Your task to perform on an android device: Go to notification settings Image 0: 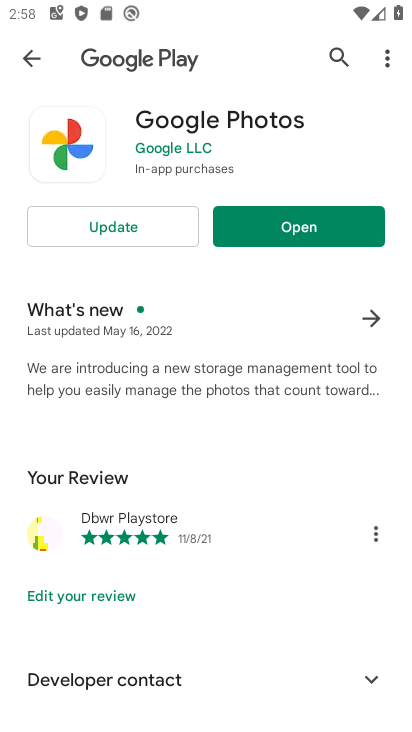
Step 0: press home button
Your task to perform on an android device: Go to notification settings Image 1: 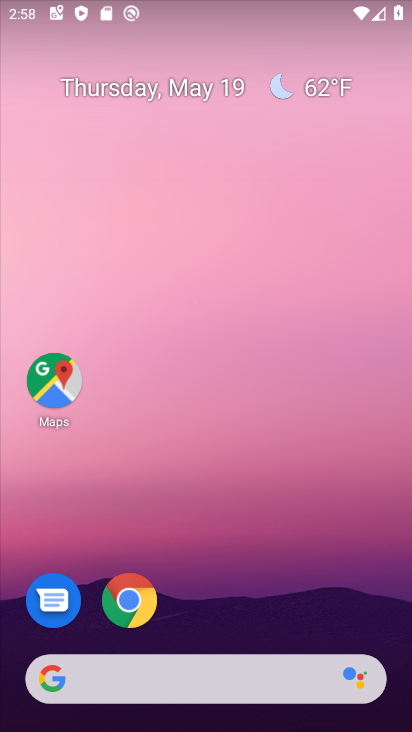
Step 1: drag from (61, 573) to (236, 165)
Your task to perform on an android device: Go to notification settings Image 2: 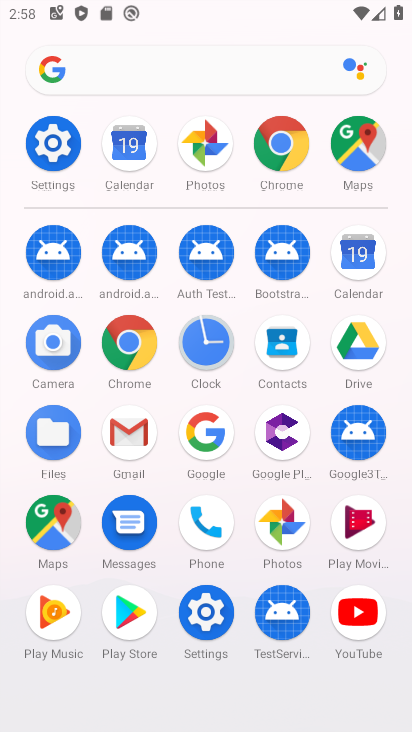
Step 2: click (51, 162)
Your task to perform on an android device: Go to notification settings Image 3: 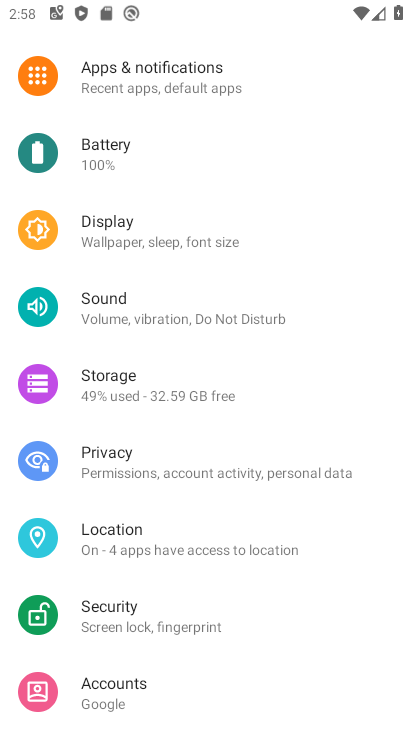
Step 3: click (152, 72)
Your task to perform on an android device: Go to notification settings Image 4: 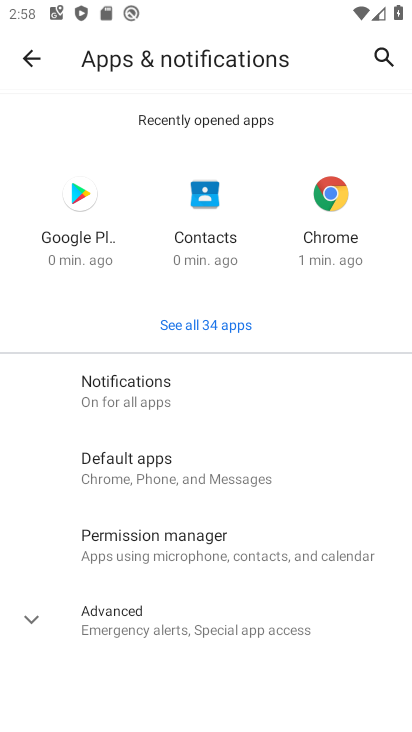
Step 4: click (164, 384)
Your task to perform on an android device: Go to notification settings Image 5: 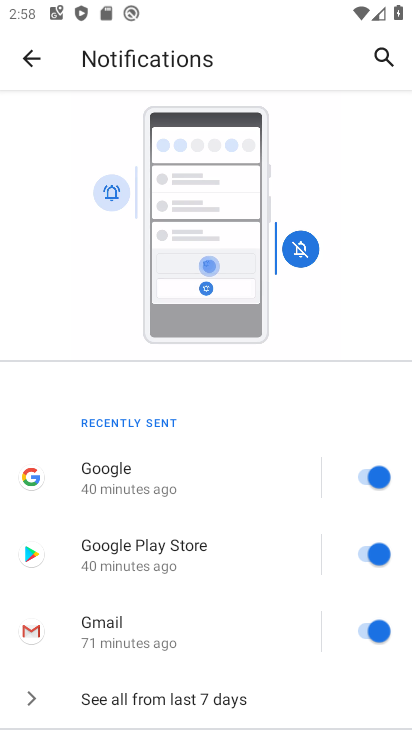
Step 5: task complete